Your task to perform on an android device: turn notification dots on Image 0: 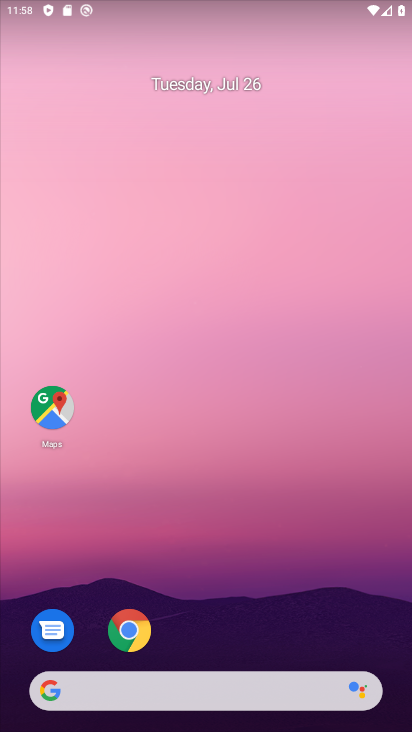
Step 0: drag from (263, 649) to (218, 153)
Your task to perform on an android device: turn notification dots on Image 1: 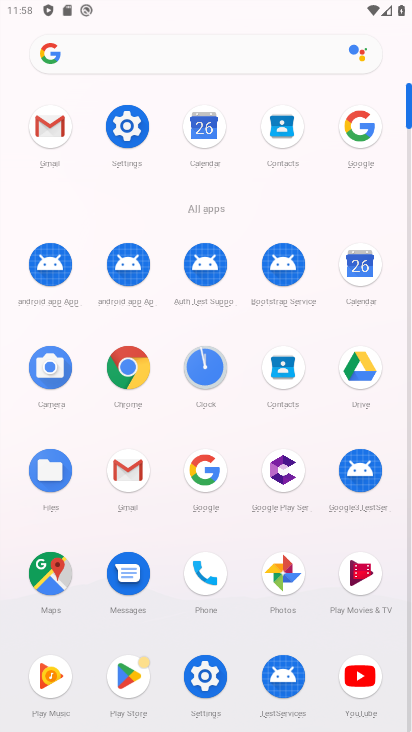
Step 1: click (129, 126)
Your task to perform on an android device: turn notification dots on Image 2: 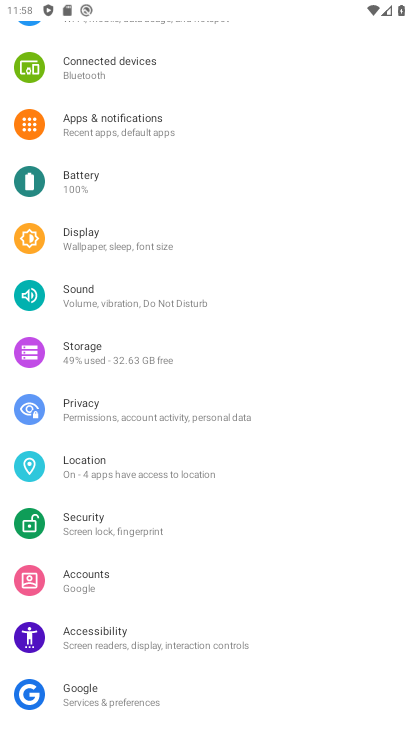
Step 2: click (120, 139)
Your task to perform on an android device: turn notification dots on Image 3: 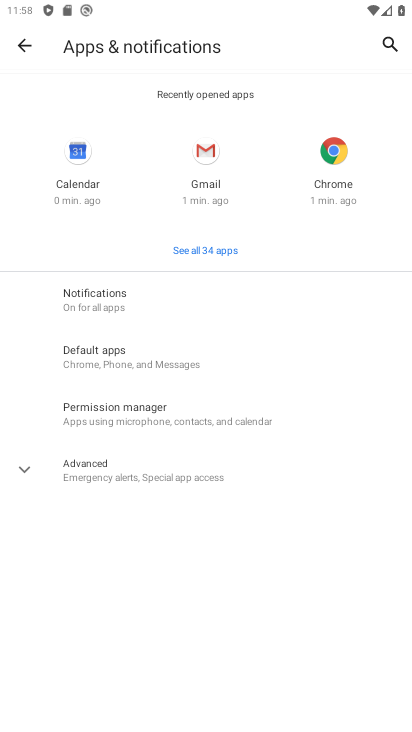
Step 3: click (104, 314)
Your task to perform on an android device: turn notification dots on Image 4: 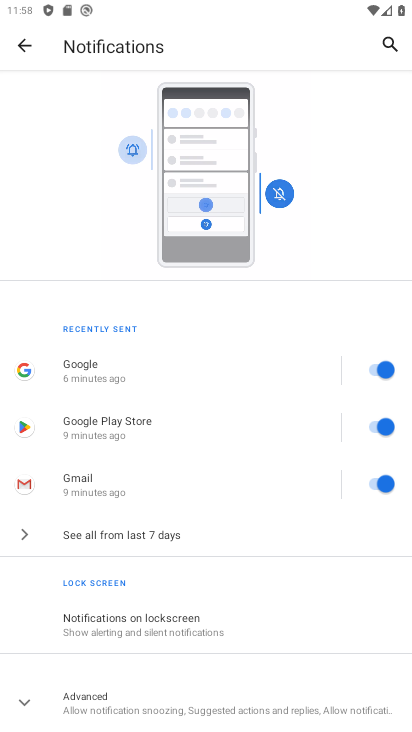
Step 4: click (94, 681)
Your task to perform on an android device: turn notification dots on Image 5: 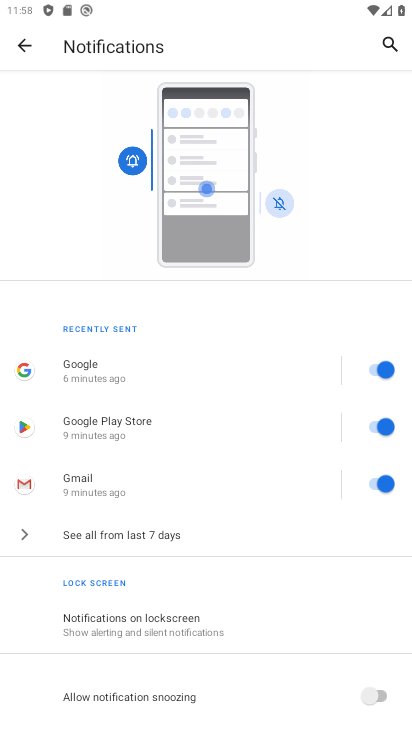
Step 5: task complete